Your task to perform on an android device: turn off airplane mode Image 0: 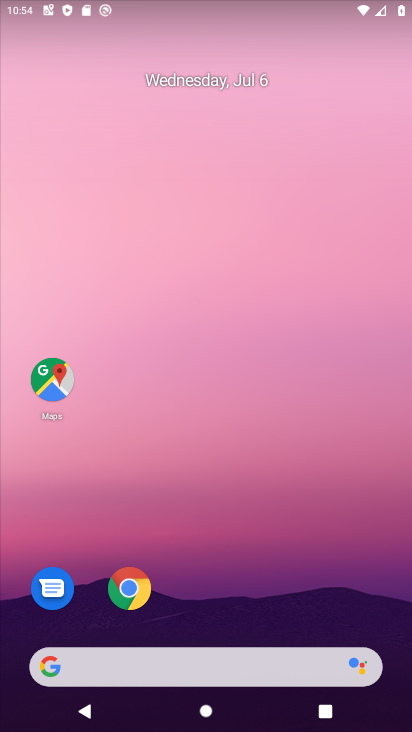
Step 0: drag from (239, 598) to (248, 341)
Your task to perform on an android device: turn off airplane mode Image 1: 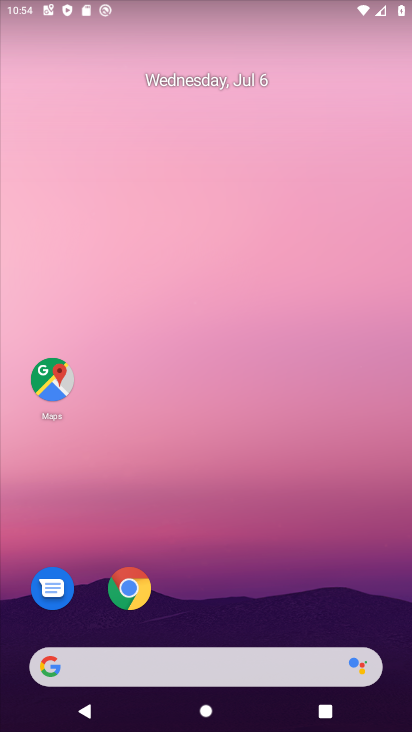
Step 1: drag from (207, 628) to (206, 250)
Your task to perform on an android device: turn off airplane mode Image 2: 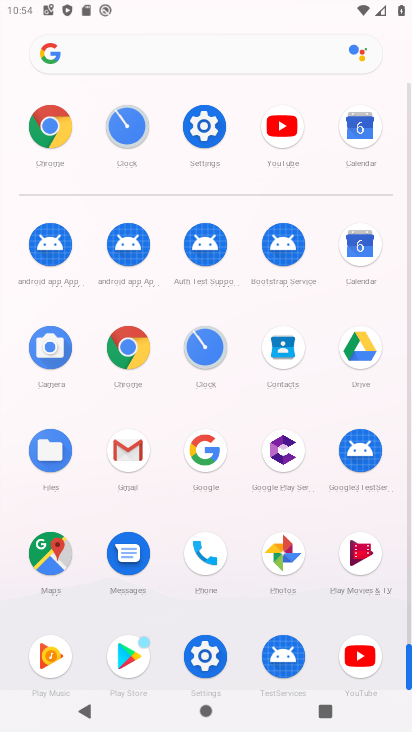
Step 2: click (198, 141)
Your task to perform on an android device: turn off airplane mode Image 3: 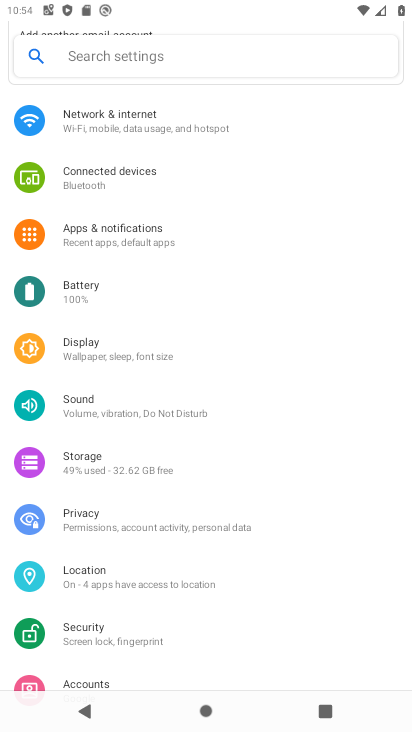
Step 3: click (171, 126)
Your task to perform on an android device: turn off airplane mode Image 4: 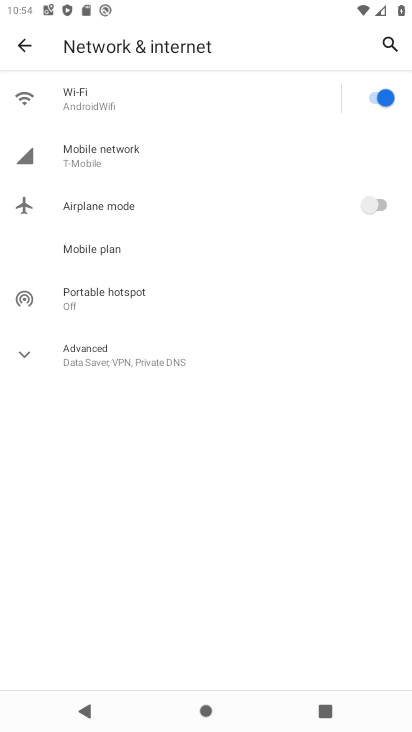
Step 4: task complete